Your task to perform on an android device: install app "Google Chat" Image 0: 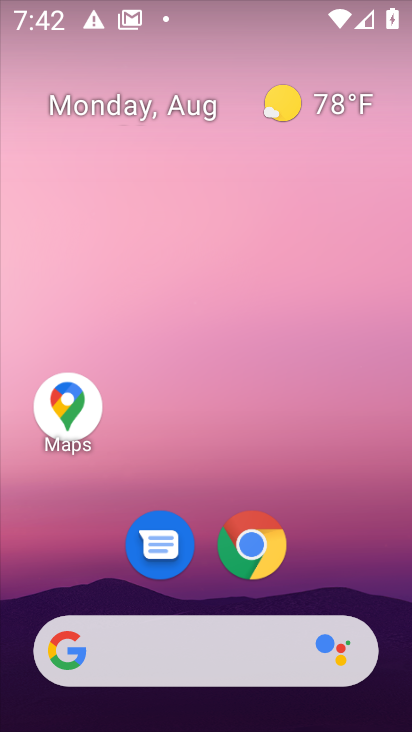
Step 0: drag from (355, 551) to (363, 89)
Your task to perform on an android device: install app "Google Chat" Image 1: 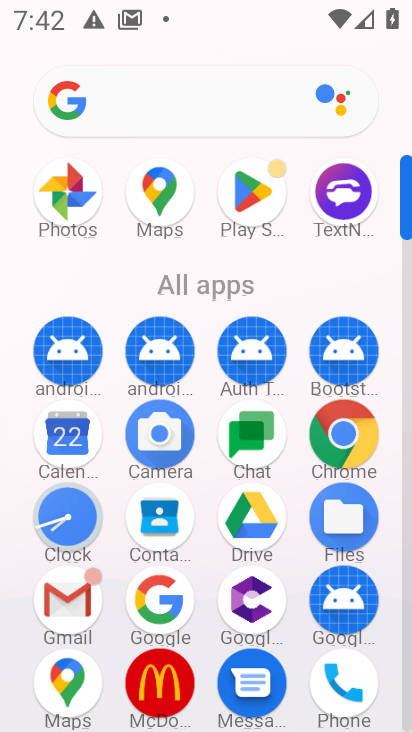
Step 1: click (255, 190)
Your task to perform on an android device: install app "Google Chat" Image 2: 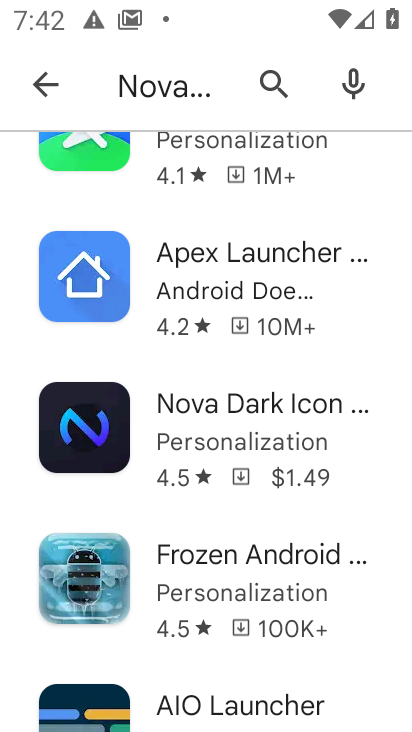
Step 2: press back button
Your task to perform on an android device: install app "Google Chat" Image 3: 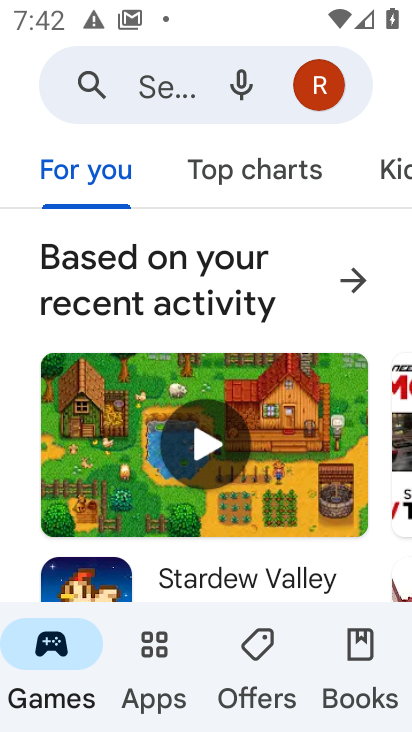
Step 3: click (157, 84)
Your task to perform on an android device: install app "Google Chat" Image 4: 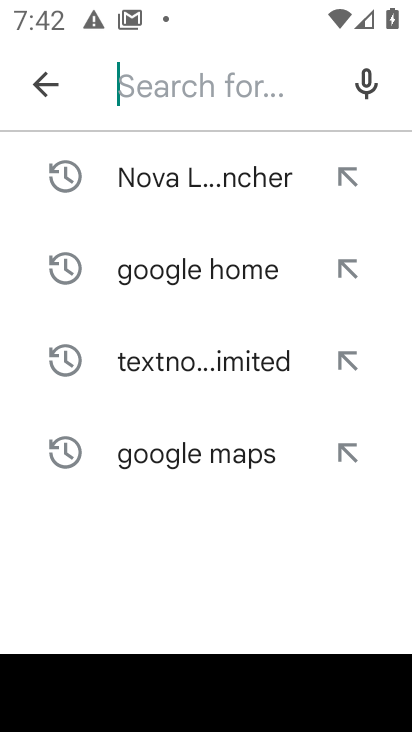
Step 4: type "google chat"
Your task to perform on an android device: install app "Google Chat" Image 5: 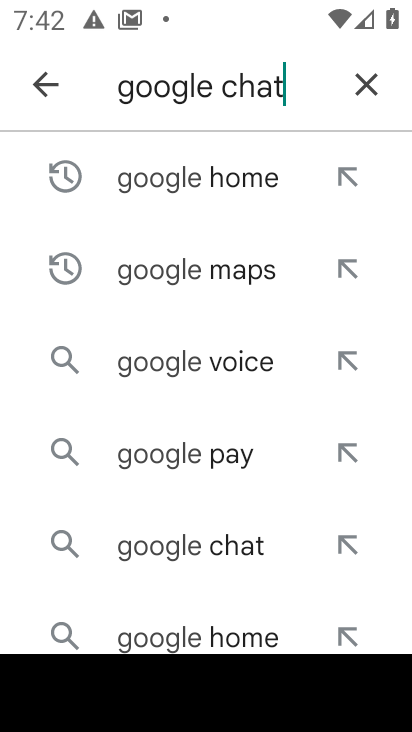
Step 5: press enter
Your task to perform on an android device: install app "Google Chat" Image 6: 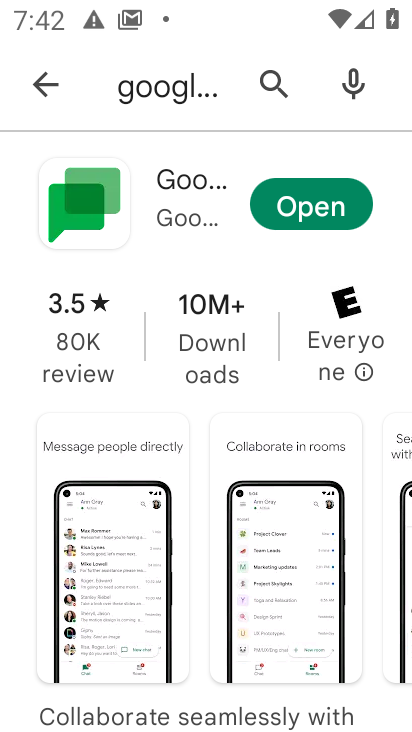
Step 6: task complete